Your task to perform on an android device: Turn off the flashlight Image 0: 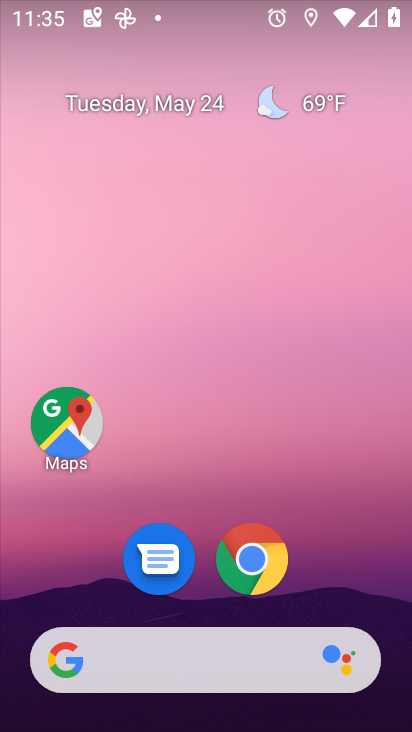
Step 0: drag from (394, 649) to (211, 102)
Your task to perform on an android device: Turn off the flashlight Image 1: 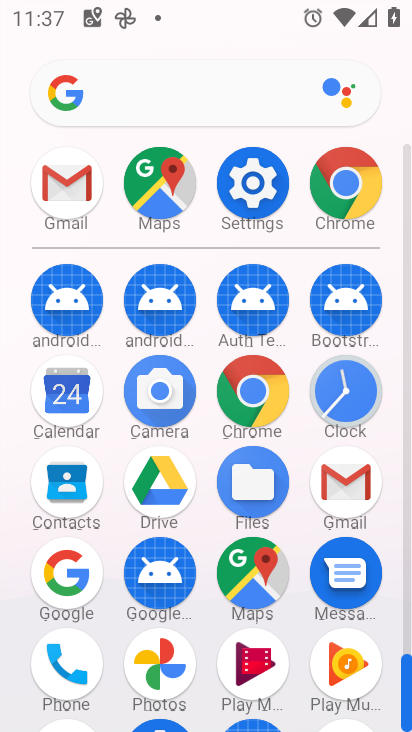
Step 1: click (232, 201)
Your task to perform on an android device: Turn off the flashlight Image 2: 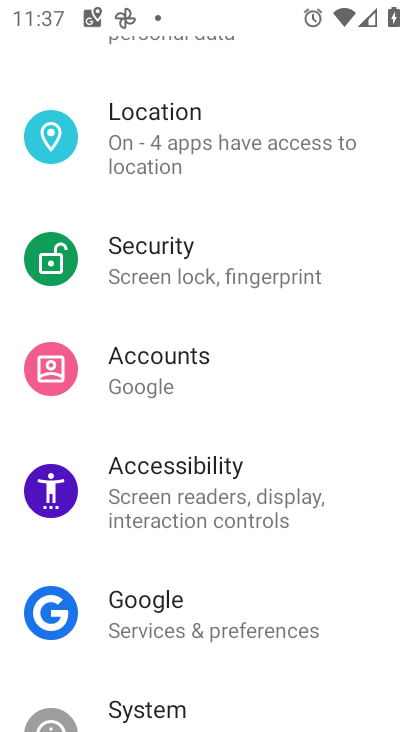
Step 2: task complete